Your task to perform on an android device: toggle notification dots Image 0: 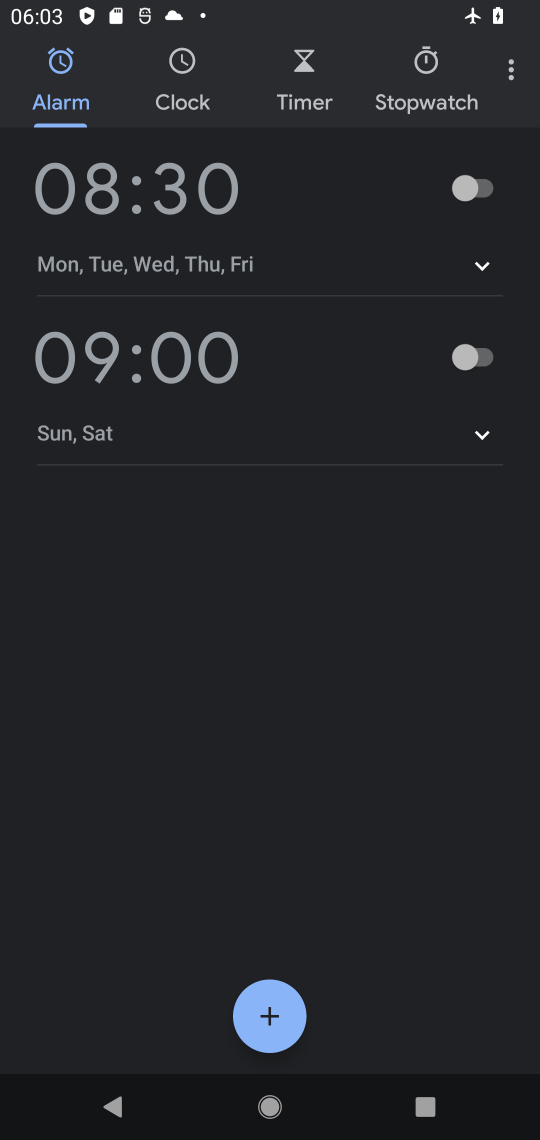
Step 0: press home button
Your task to perform on an android device: toggle notification dots Image 1: 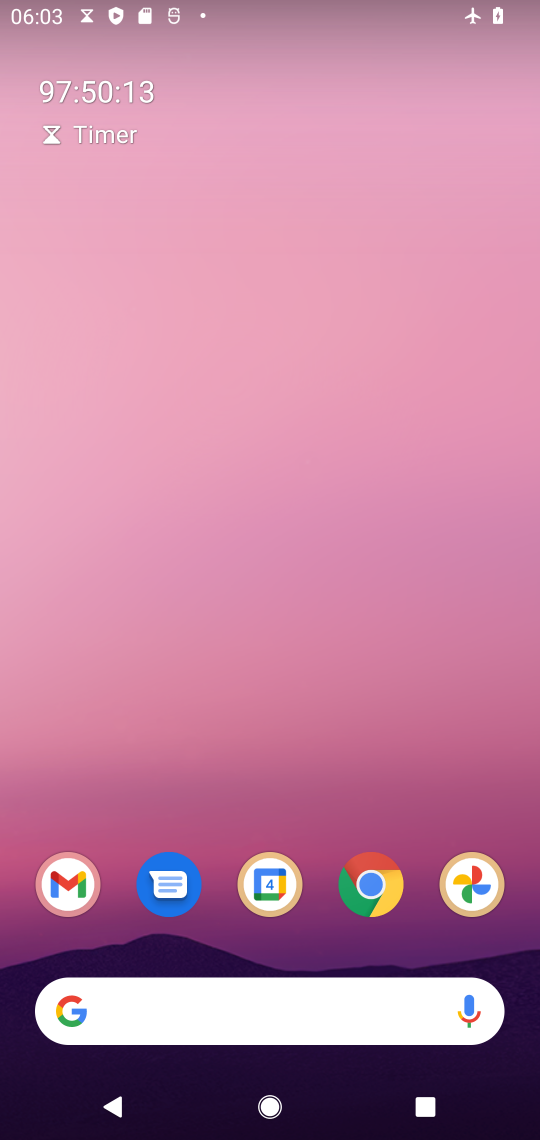
Step 1: drag from (301, 1002) to (309, 278)
Your task to perform on an android device: toggle notification dots Image 2: 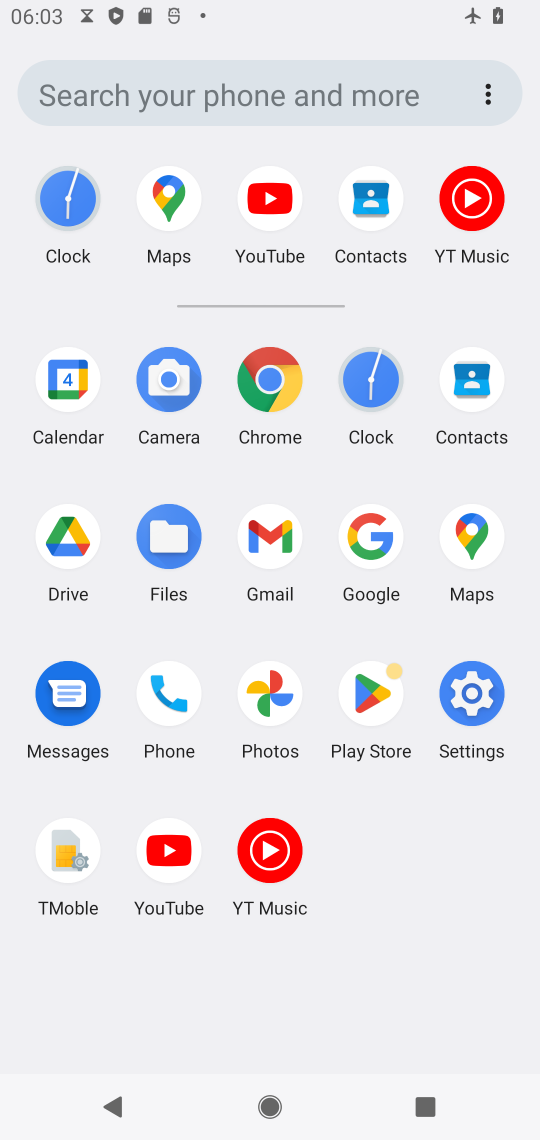
Step 2: click (494, 684)
Your task to perform on an android device: toggle notification dots Image 3: 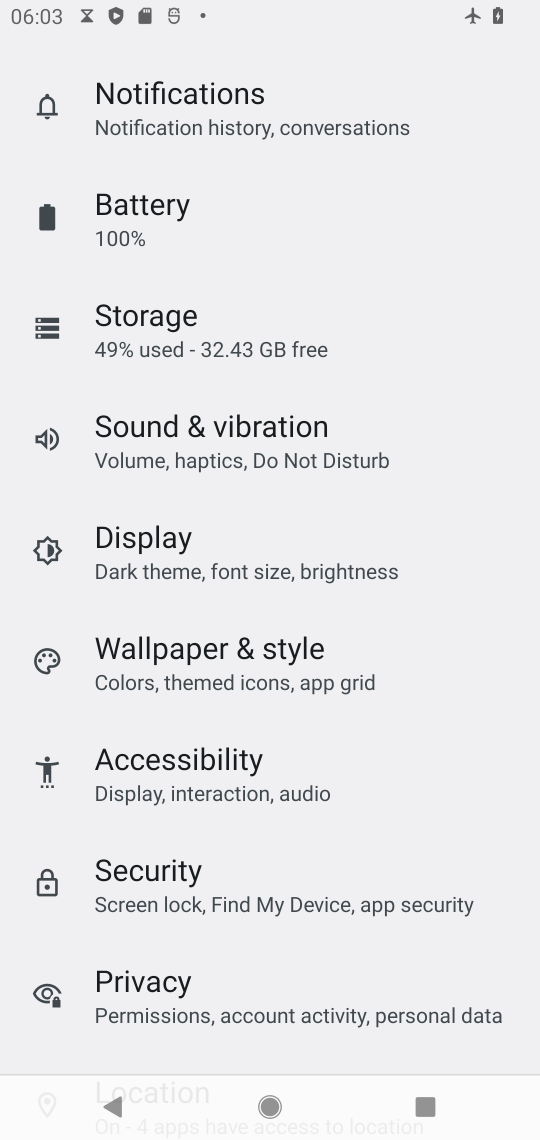
Step 3: drag from (297, 150) to (230, 1002)
Your task to perform on an android device: toggle notification dots Image 4: 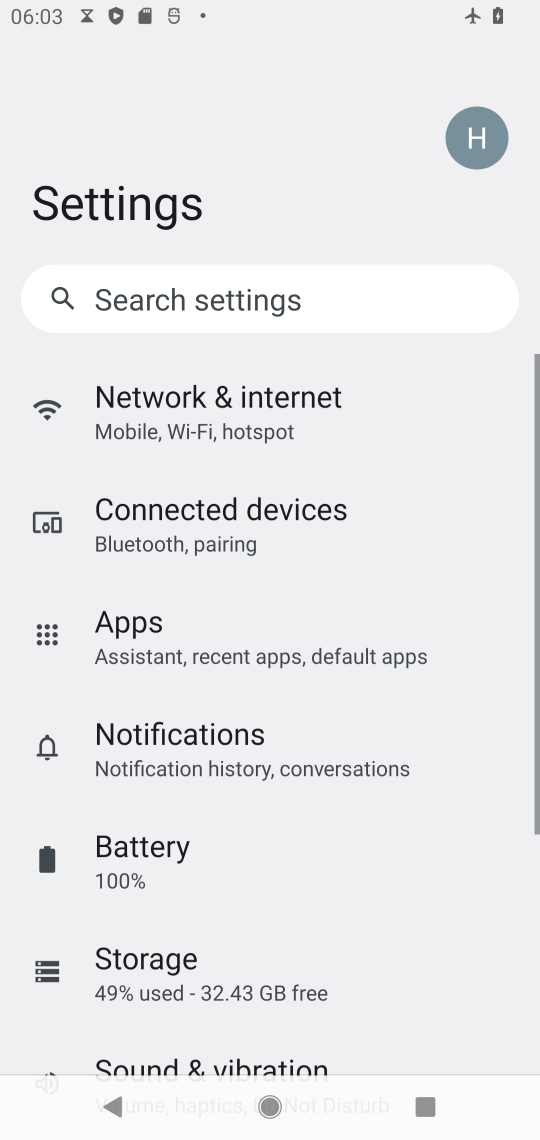
Step 4: drag from (235, 159) to (172, 923)
Your task to perform on an android device: toggle notification dots Image 5: 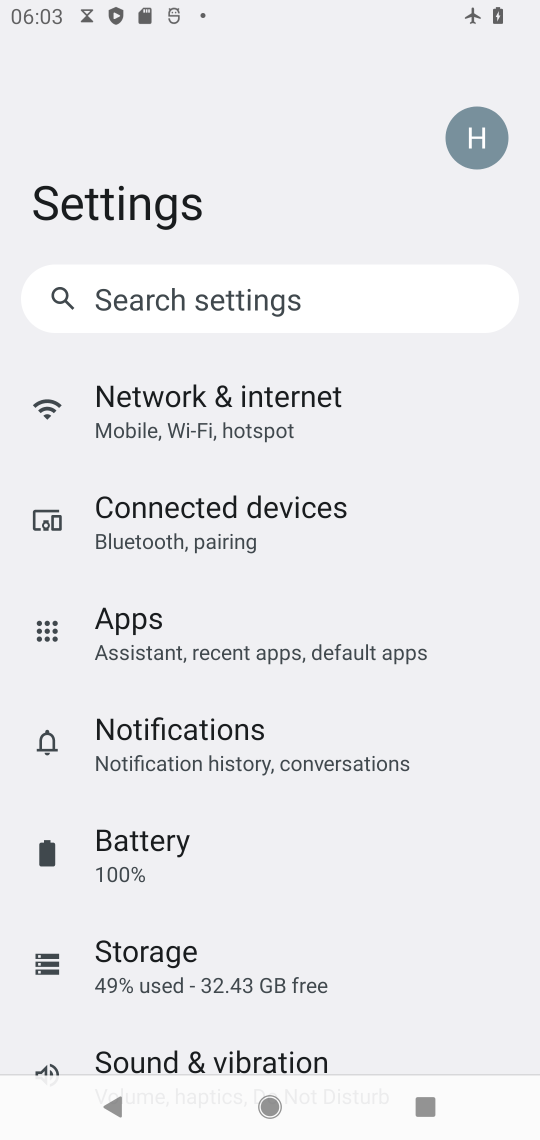
Step 5: click (248, 283)
Your task to perform on an android device: toggle notification dots Image 6: 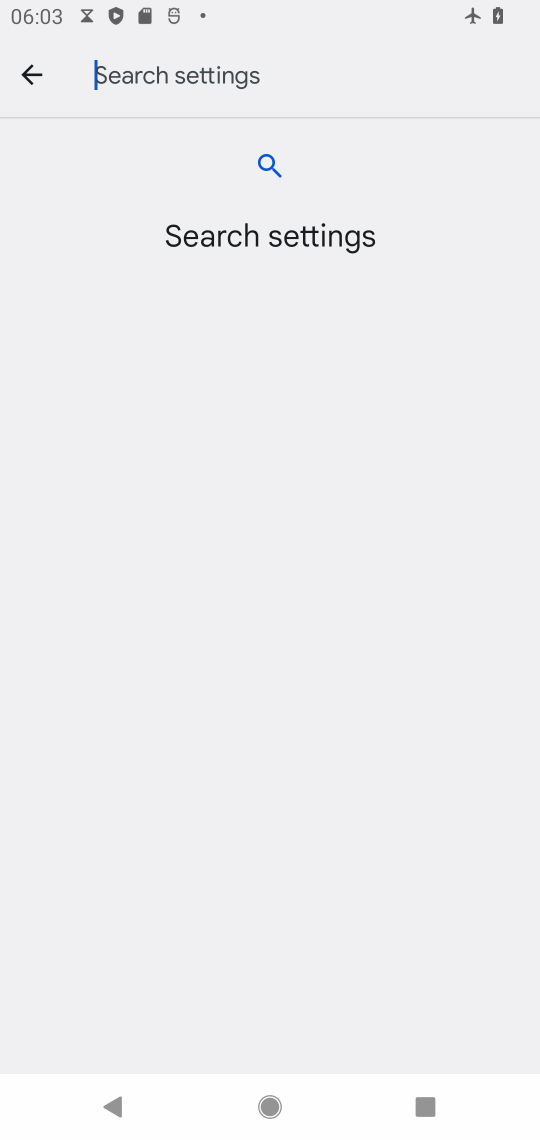
Step 6: click (368, 62)
Your task to perform on an android device: toggle notification dots Image 7: 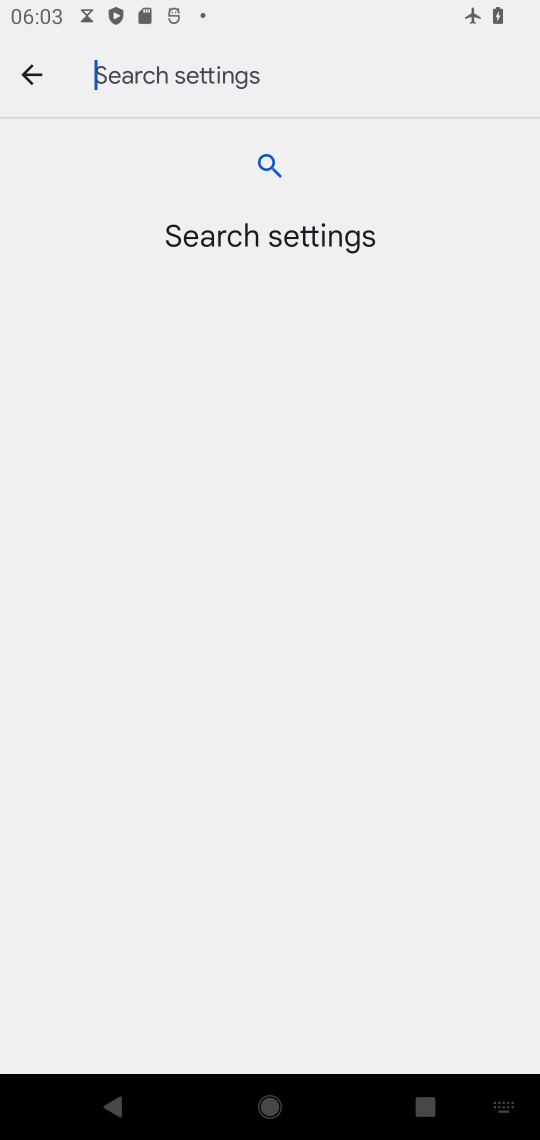
Step 7: type "notification dots "
Your task to perform on an android device: toggle notification dots Image 8: 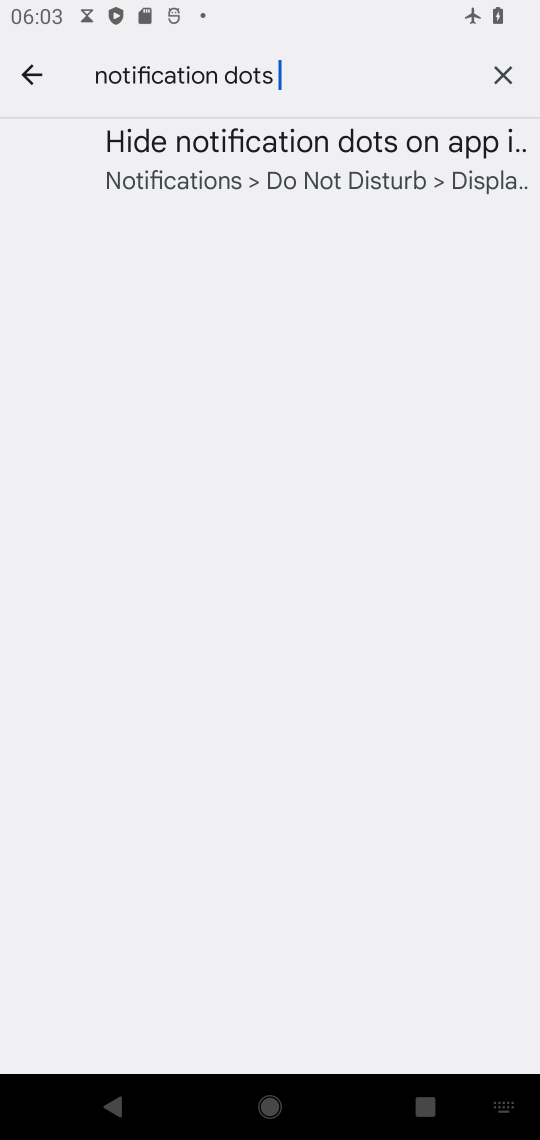
Step 8: click (328, 171)
Your task to perform on an android device: toggle notification dots Image 9: 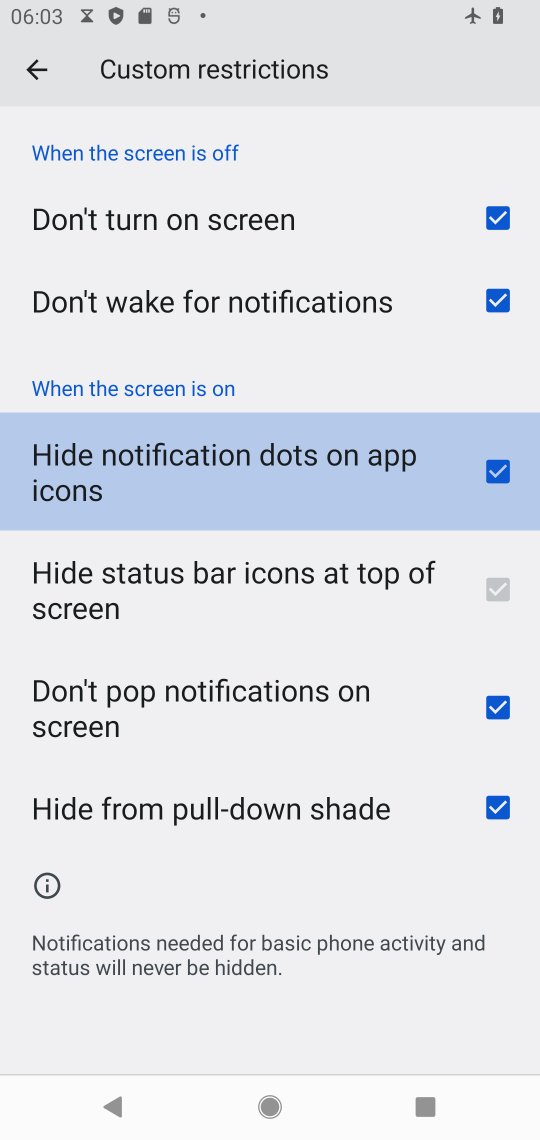
Step 9: click (510, 466)
Your task to perform on an android device: toggle notification dots Image 10: 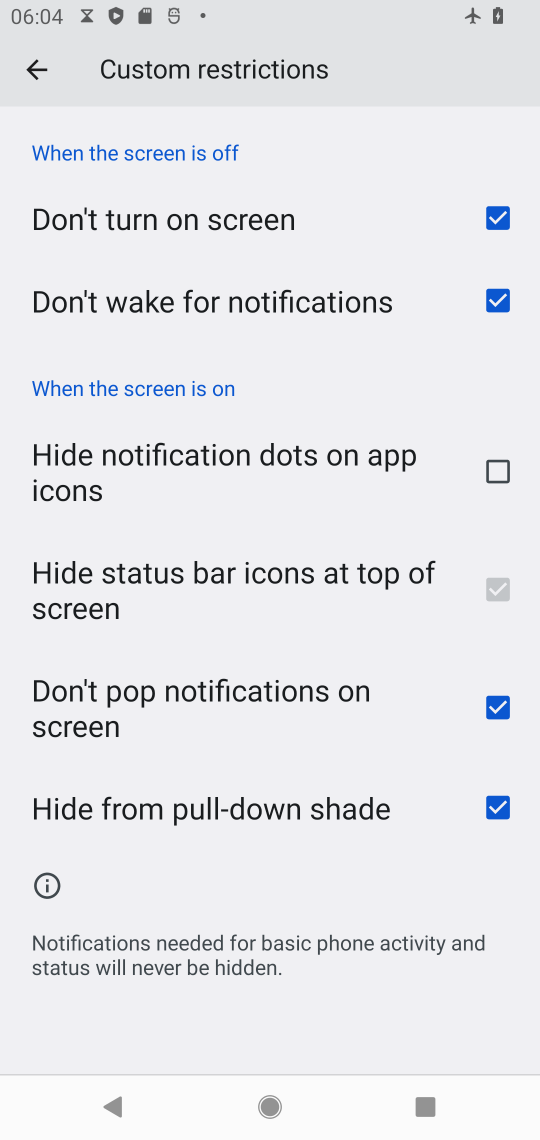
Step 10: task complete